Your task to perform on an android device: change alarm snooze length Image 0: 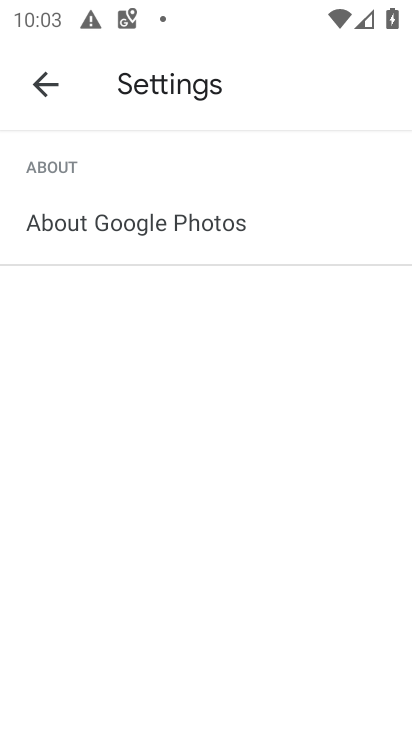
Step 0: press home button
Your task to perform on an android device: change alarm snooze length Image 1: 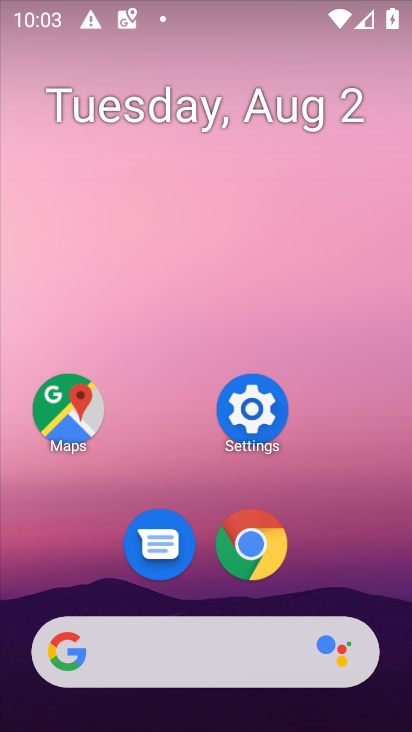
Step 1: click (251, 396)
Your task to perform on an android device: change alarm snooze length Image 2: 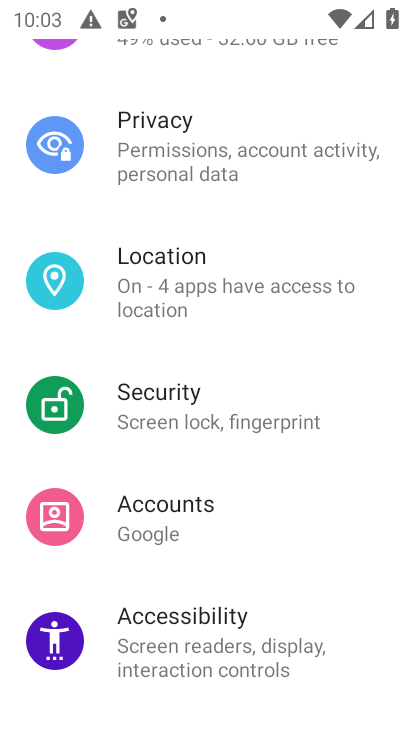
Step 2: press home button
Your task to perform on an android device: change alarm snooze length Image 3: 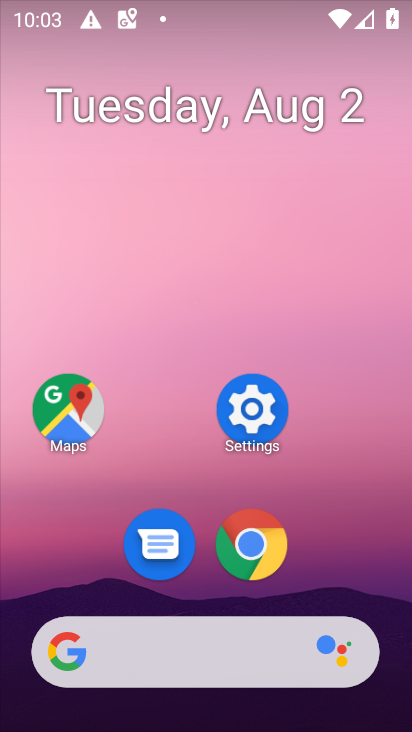
Step 3: drag from (232, 656) to (372, 67)
Your task to perform on an android device: change alarm snooze length Image 4: 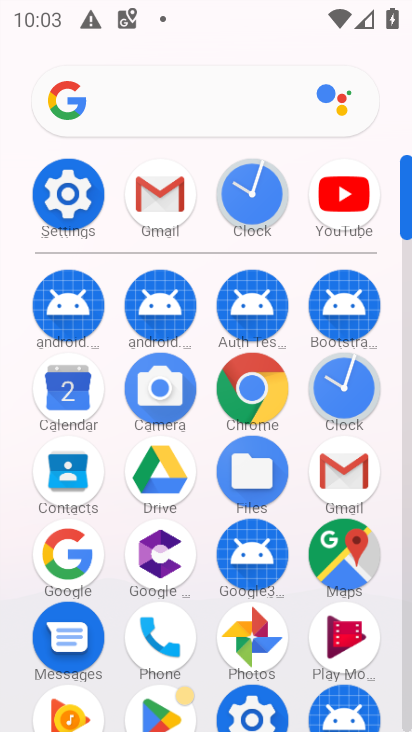
Step 4: click (354, 392)
Your task to perform on an android device: change alarm snooze length Image 5: 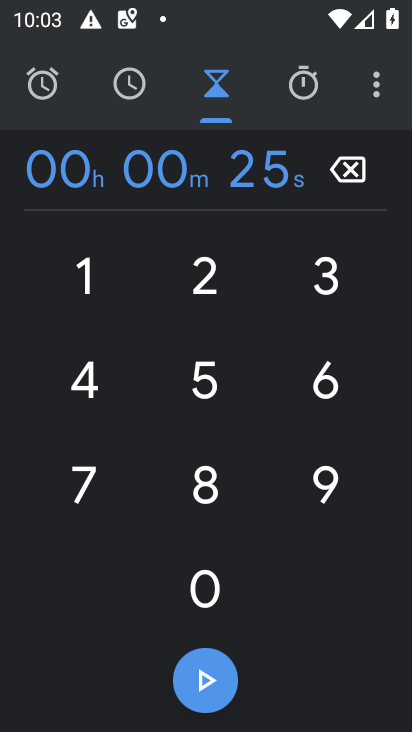
Step 5: click (371, 70)
Your task to perform on an android device: change alarm snooze length Image 6: 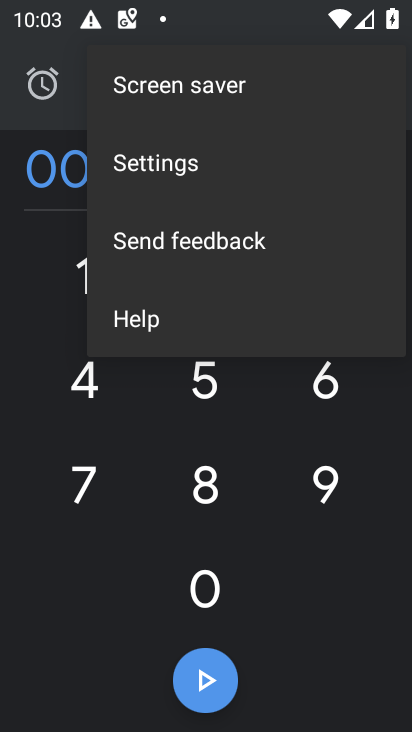
Step 6: click (149, 159)
Your task to perform on an android device: change alarm snooze length Image 7: 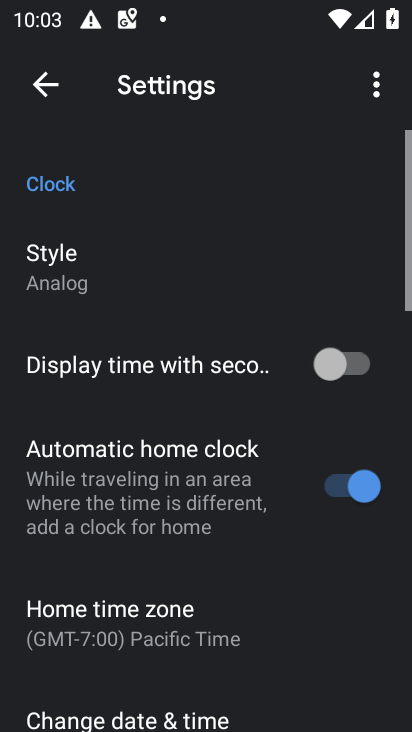
Step 7: drag from (205, 597) to (360, 103)
Your task to perform on an android device: change alarm snooze length Image 8: 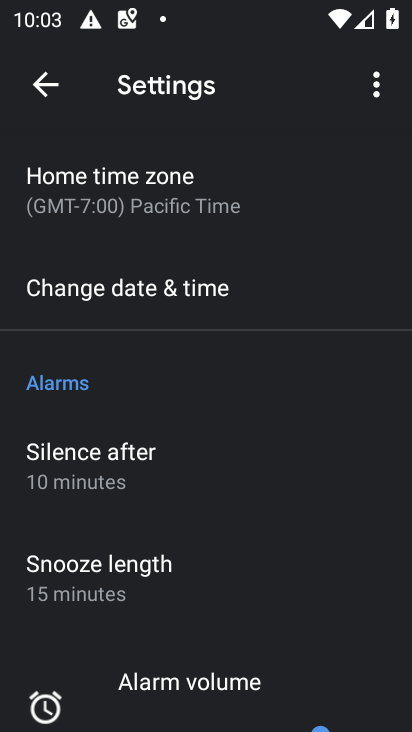
Step 8: click (122, 577)
Your task to perform on an android device: change alarm snooze length Image 9: 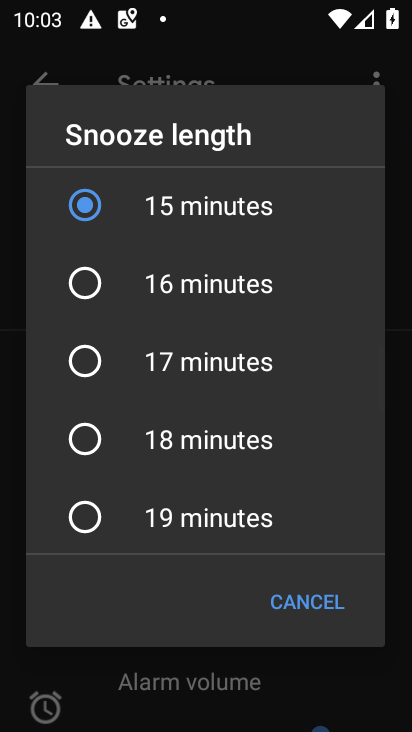
Step 9: click (89, 440)
Your task to perform on an android device: change alarm snooze length Image 10: 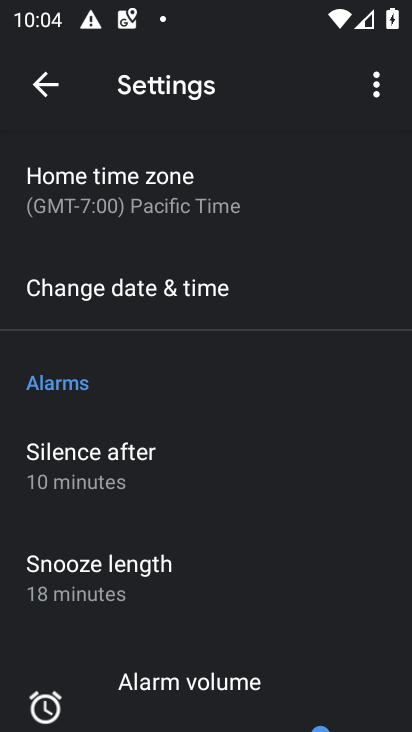
Step 10: click (124, 470)
Your task to perform on an android device: change alarm snooze length Image 11: 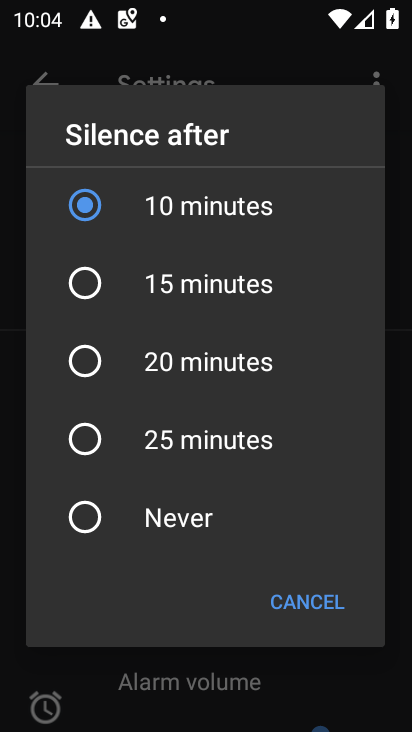
Step 11: click (92, 291)
Your task to perform on an android device: change alarm snooze length Image 12: 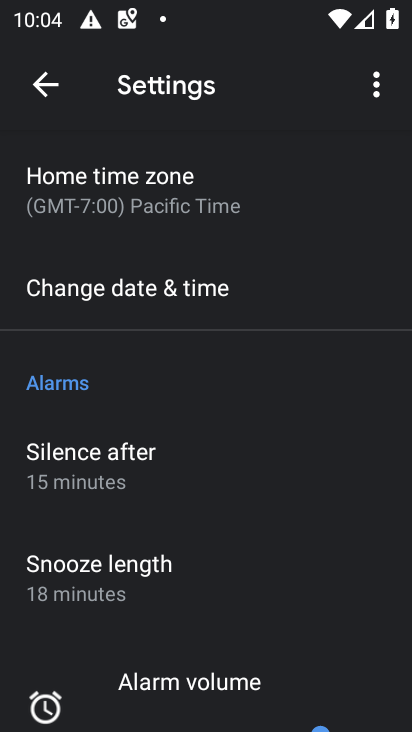
Step 12: task complete